Your task to perform on an android device: turn vacation reply on in the gmail app Image 0: 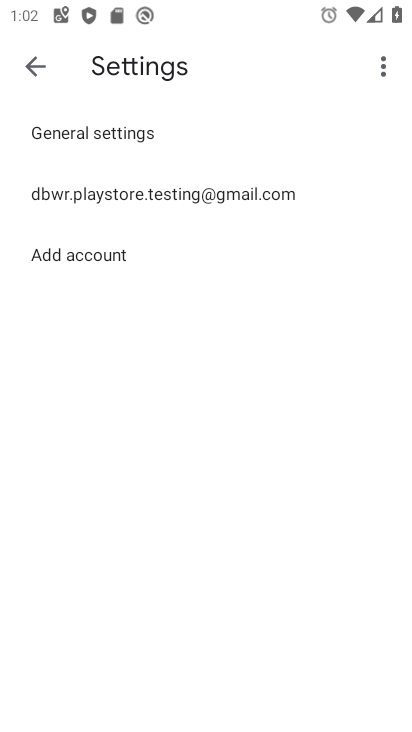
Step 0: click (272, 186)
Your task to perform on an android device: turn vacation reply on in the gmail app Image 1: 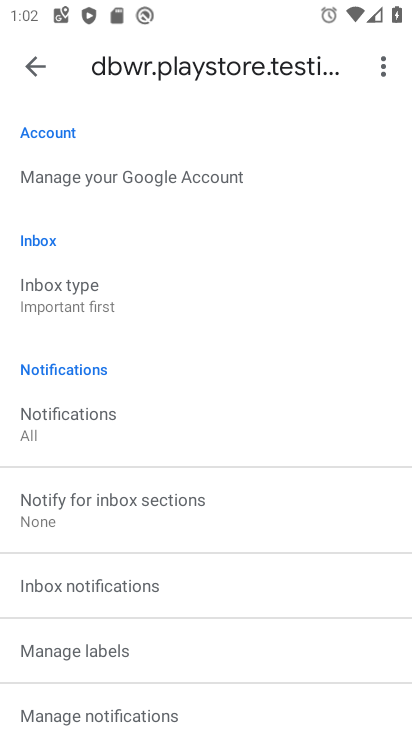
Step 1: drag from (236, 426) to (240, 115)
Your task to perform on an android device: turn vacation reply on in the gmail app Image 2: 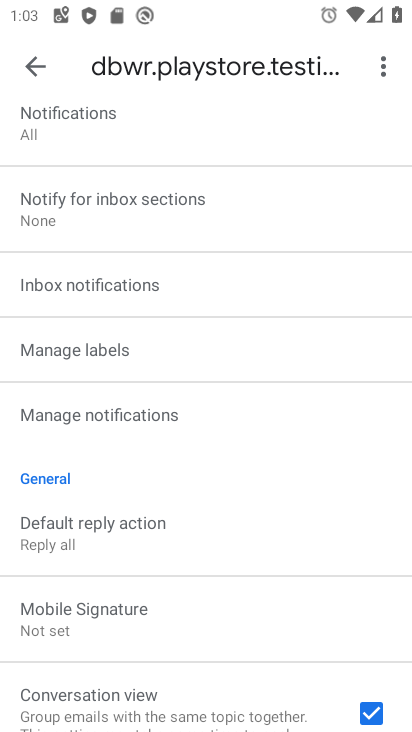
Step 2: drag from (243, 385) to (255, 126)
Your task to perform on an android device: turn vacation reply on in the gmail app Image 3: 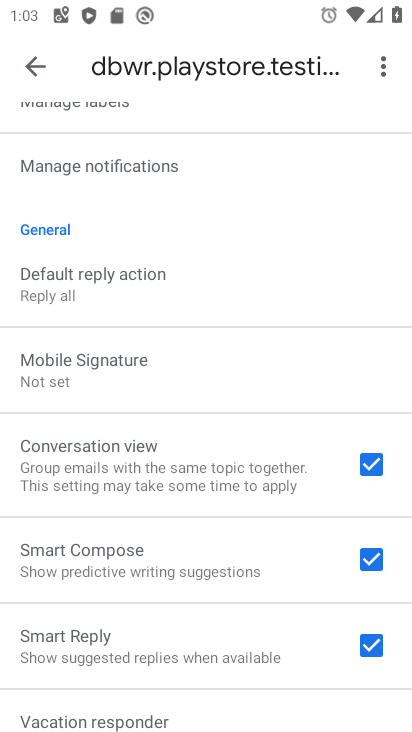
Step 3: drag from (213, 354) to (228, 99)
Your task to perform on an android device: turn vacation reply on in the gmail app Image 4: 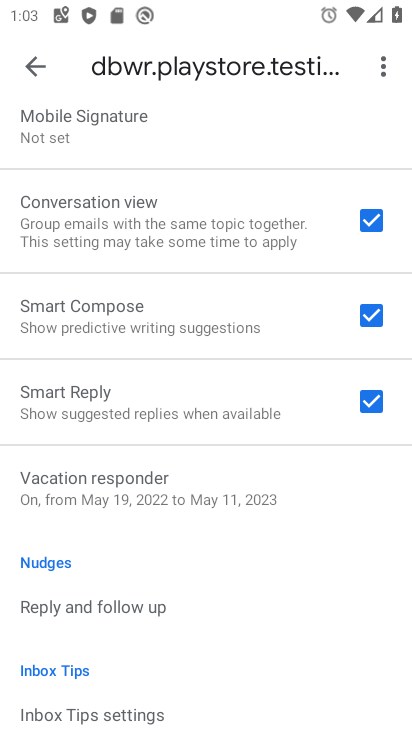
Step 4: click (217, 484)
Your task to perform on an android device: turn vacation reply on in the gmail app Image 5: 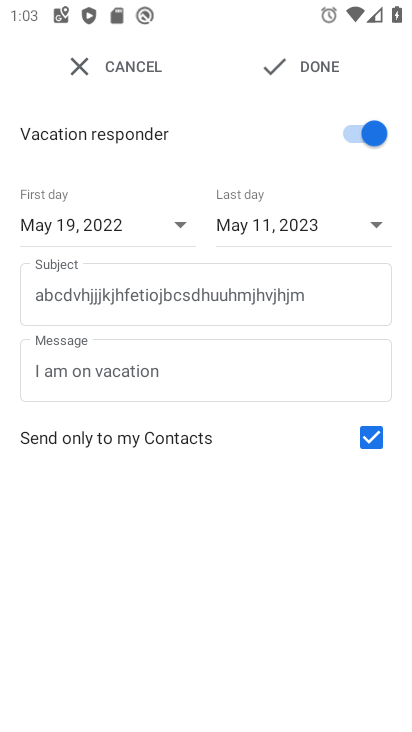
Step 5: task complete